Your task to perform on an android device: Open location settings Image 0: 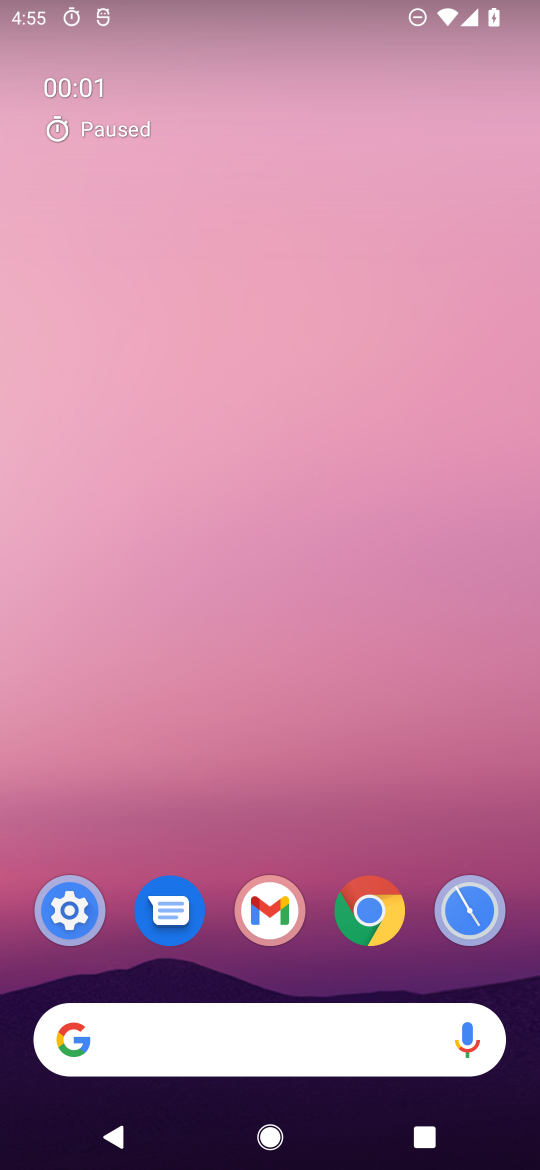
Step 0: press home button
Your task to perform on an android device: Open location settings Image 1: 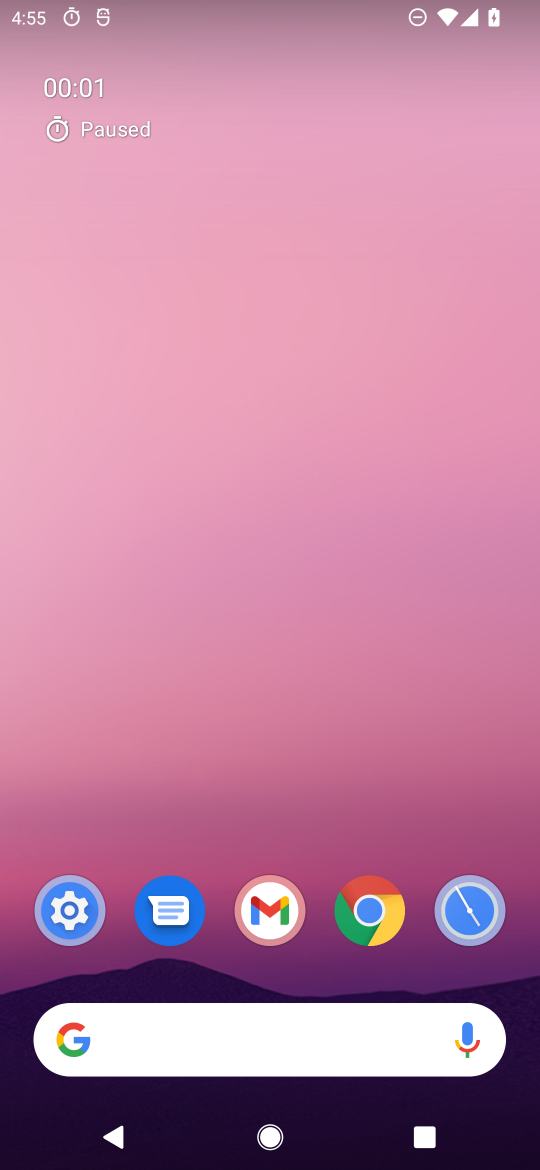
Step 1: click (46, 921)
Your task to perform on an android device: Open location settings Image 2: 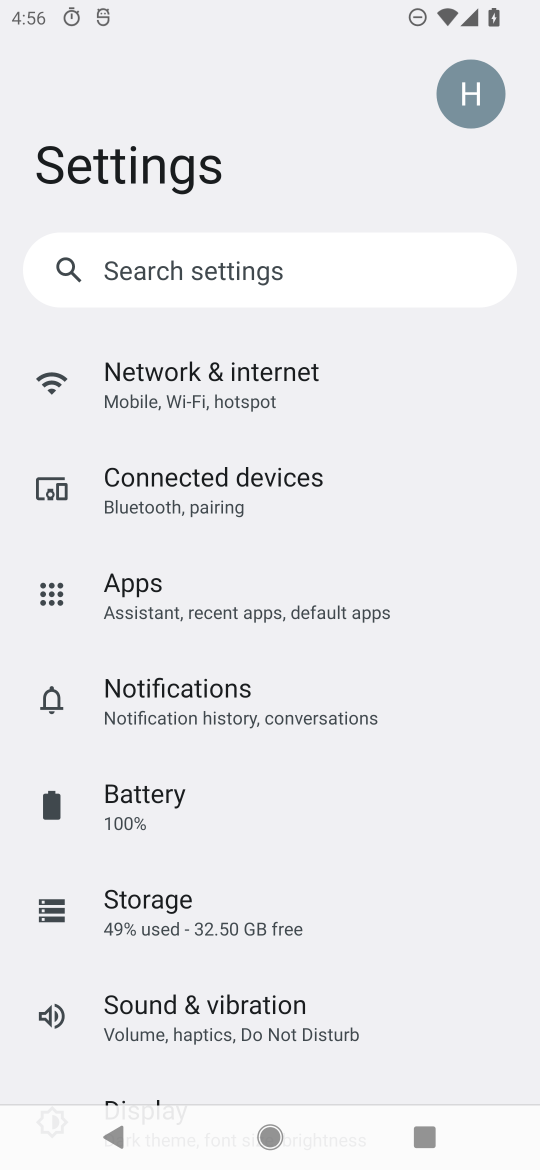
Step 2: drag from (375, 926) to (377, 482)
Your task to perform on an android device: Open location settings Image 3: 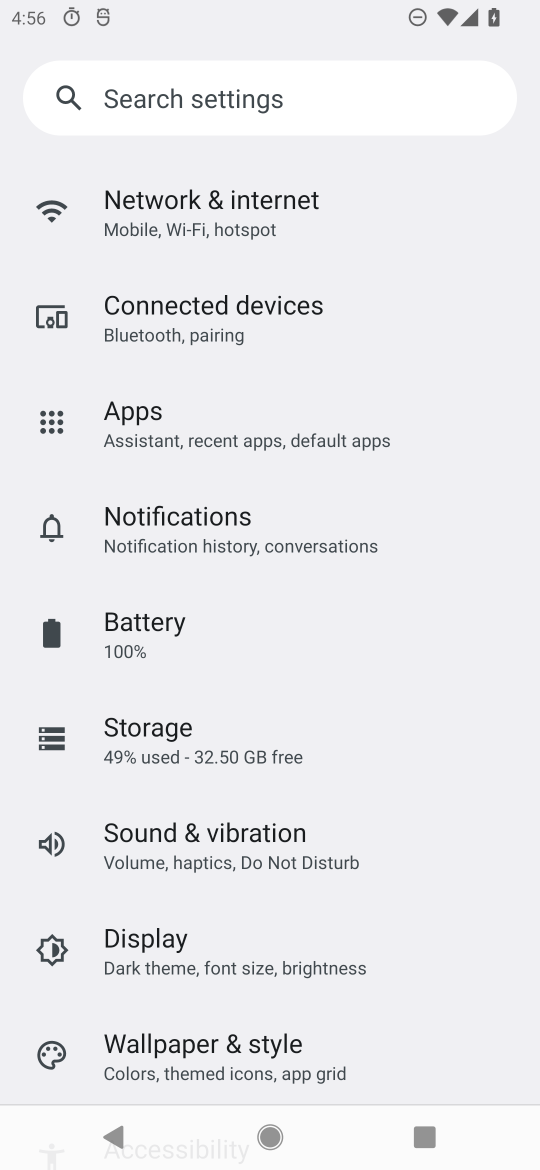
Step 3: drag from (379, 1030) to (383, 306)
Your task to perform on an android device: Open location settings Image 4: 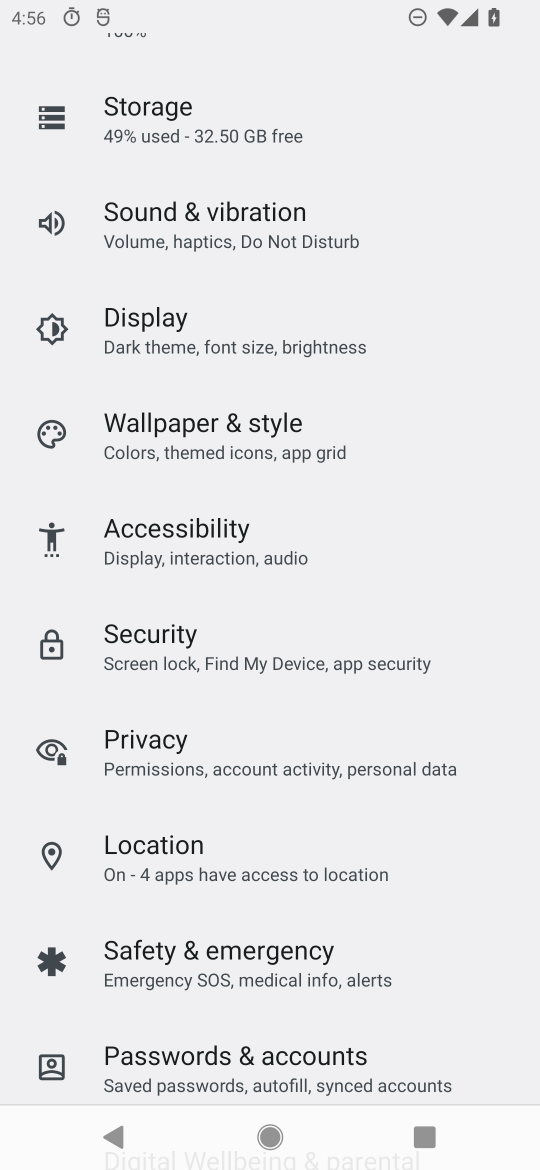
Step 4: click (204, 861)
Your task to perform on an android device: Open location settings Image 5: 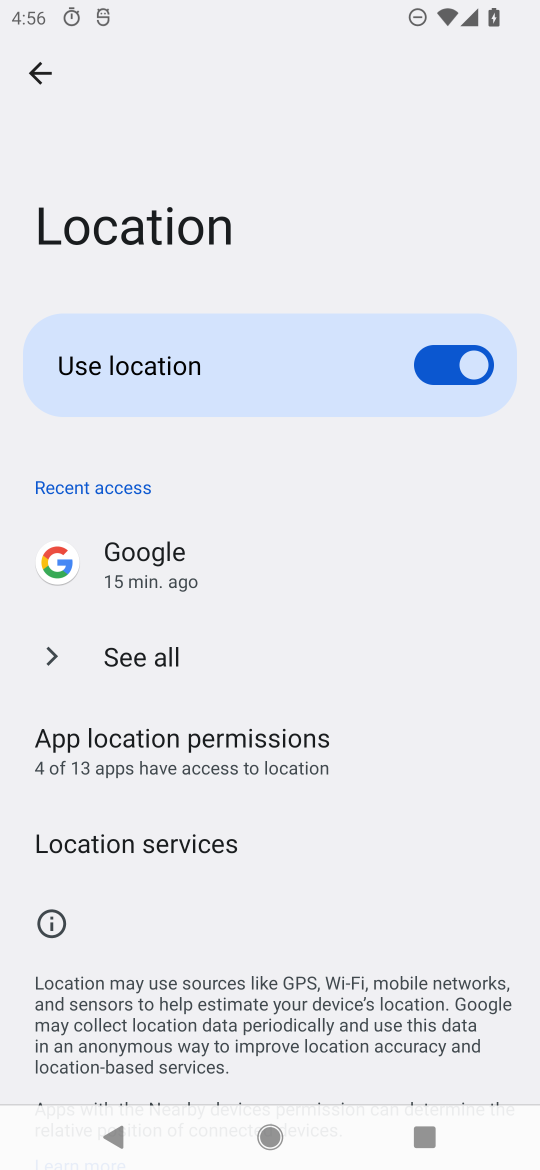
Step 5: task complete